Your task to perform on an android device: What's on my calendar tomorrow? Image 0: 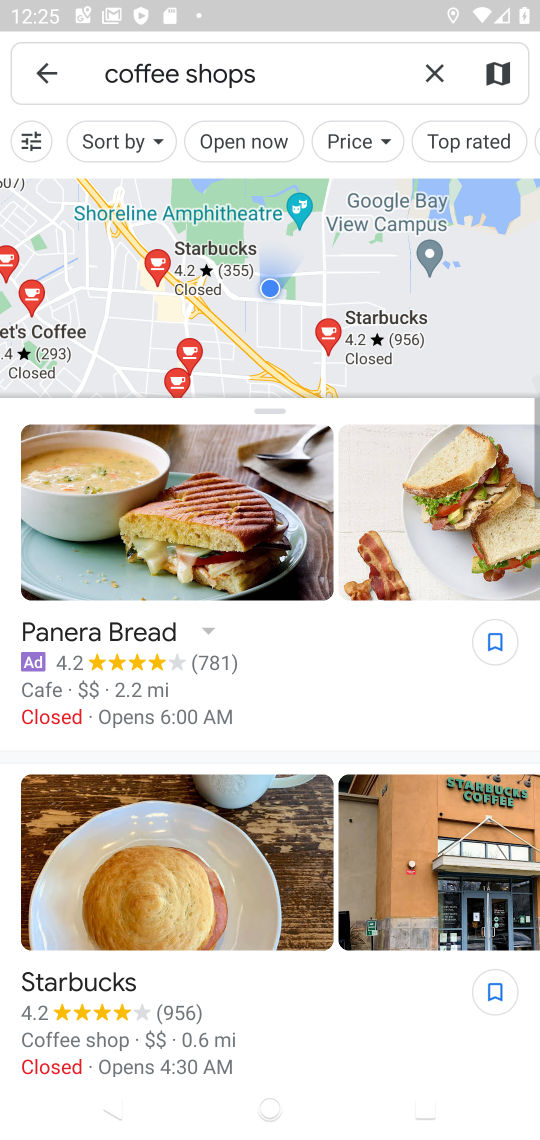
Step 0: press home button
Your task to perform on an android device: What's on my calendar tomorrow? Image 1: 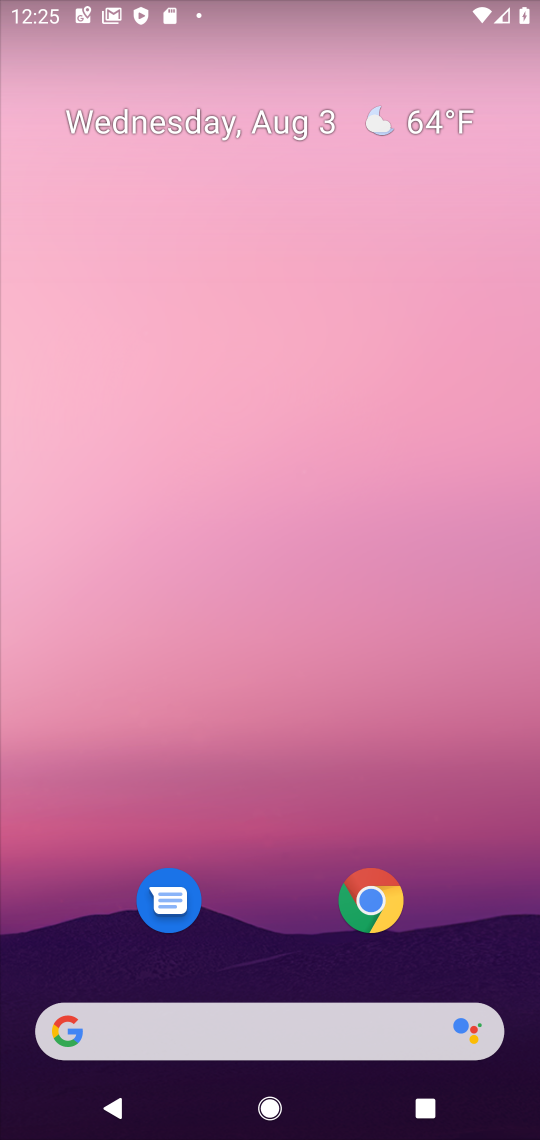
Step 1: drag from (295, 958) to (258, 153)
Your task to perform on an android device: What's on my calendar tomorrow? Image 2: 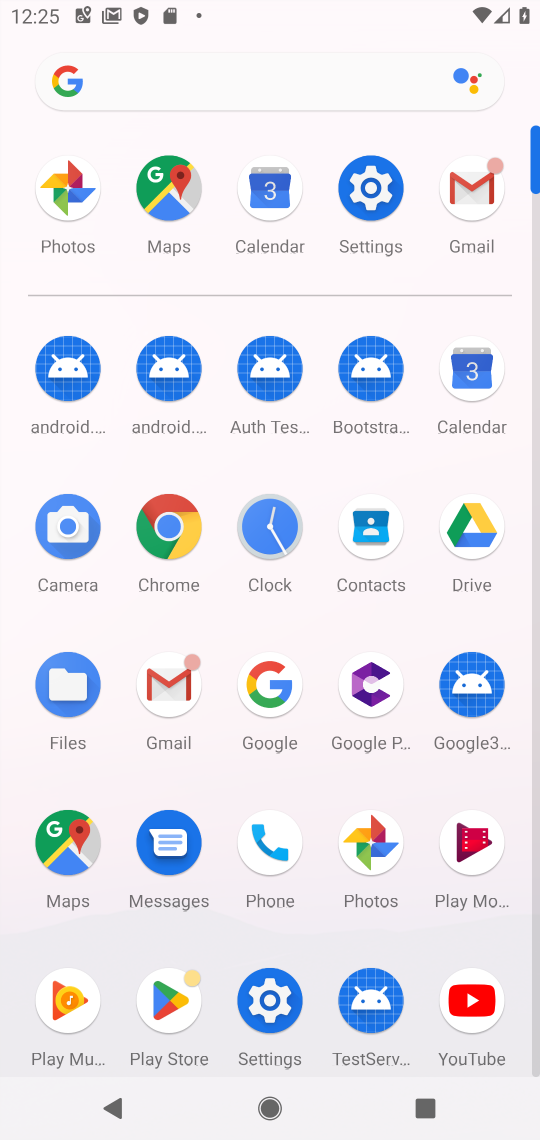
Step 2: click (470, 363)
Your task to perform on an android device: What's on my calendar tomorrow? Image 3: 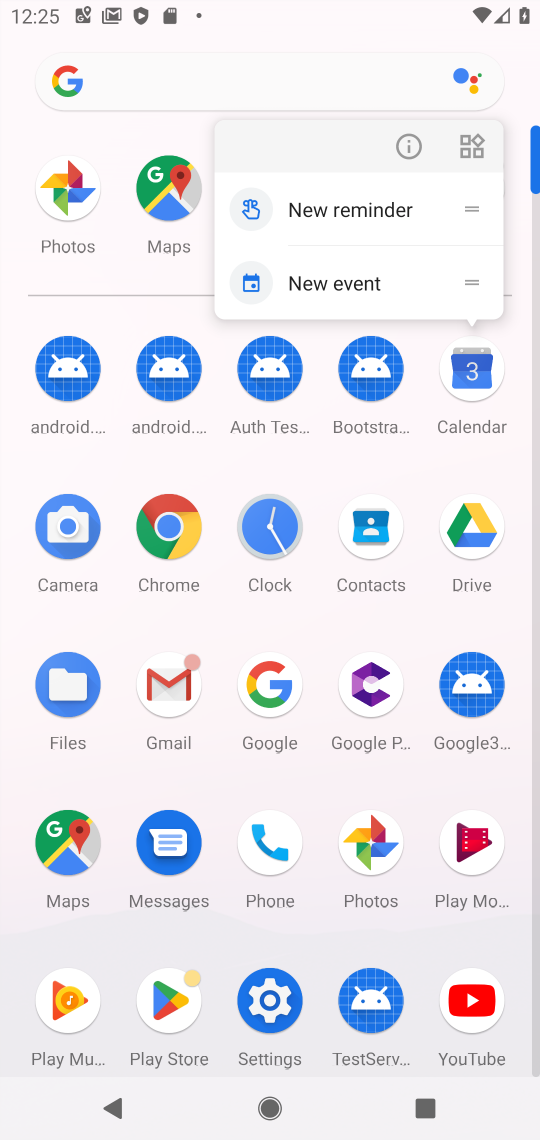
Step 3: click (470, 370)
Your task to perform on an android device: What's on my calendar tomorrow? Image 4: 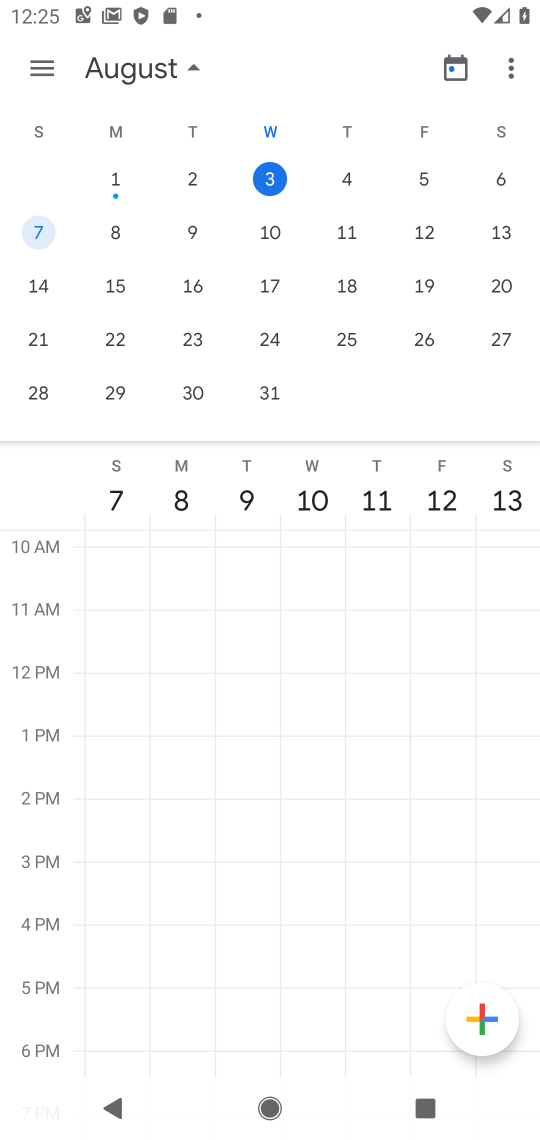
Step 4: click (352, 168)
Your task to perform on an android device: What's on my calendar tomorrow? Image 5: 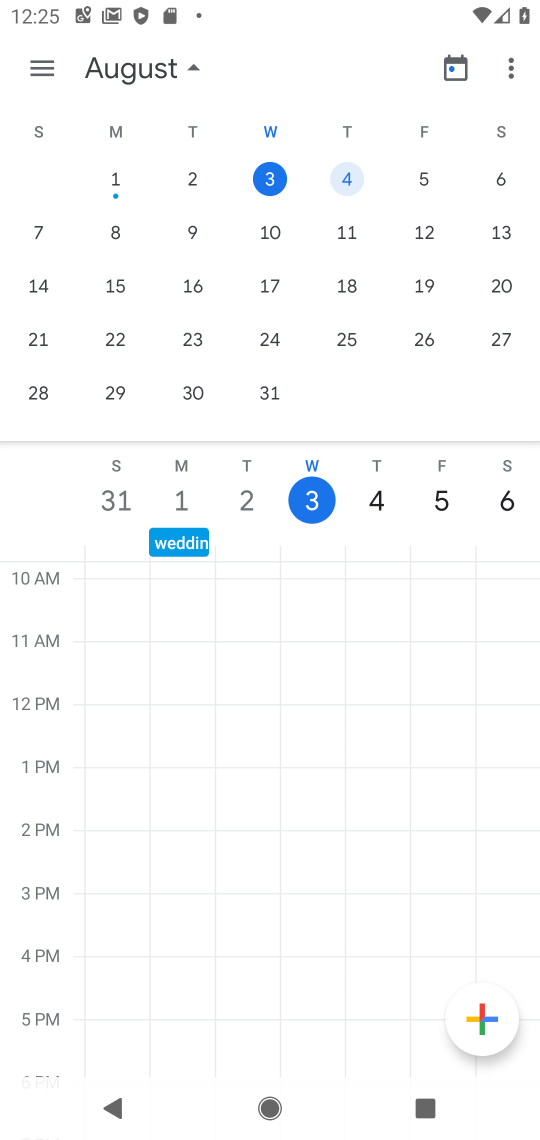
Step 5: click (382, 505)
Your task to perform on an android device: What's on my calendar tomorrow? Image 6: 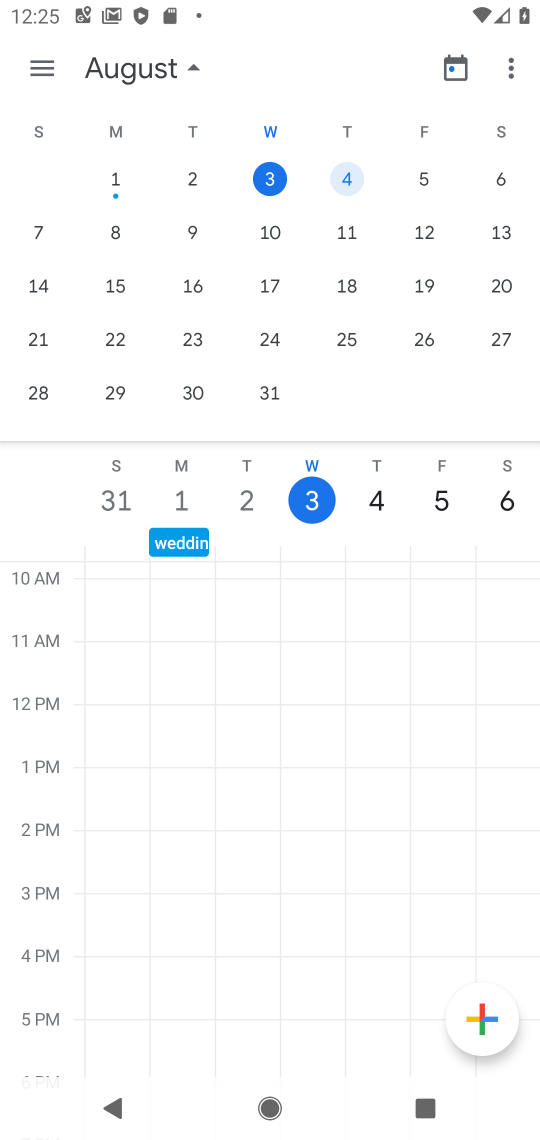
Step 6: click (382, 501)
Your task to perform on an android device: What's on my calendar tomorrow? Image 7: 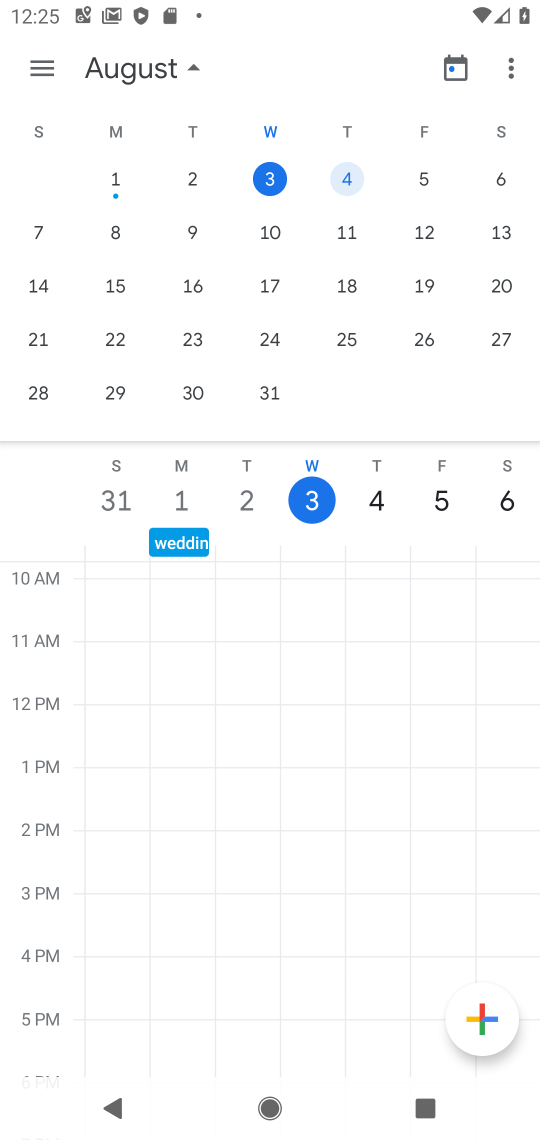
Step 7: click (373, 177)
Your task to perform on an android device: What's on my calendar tomorrow? Image 8: 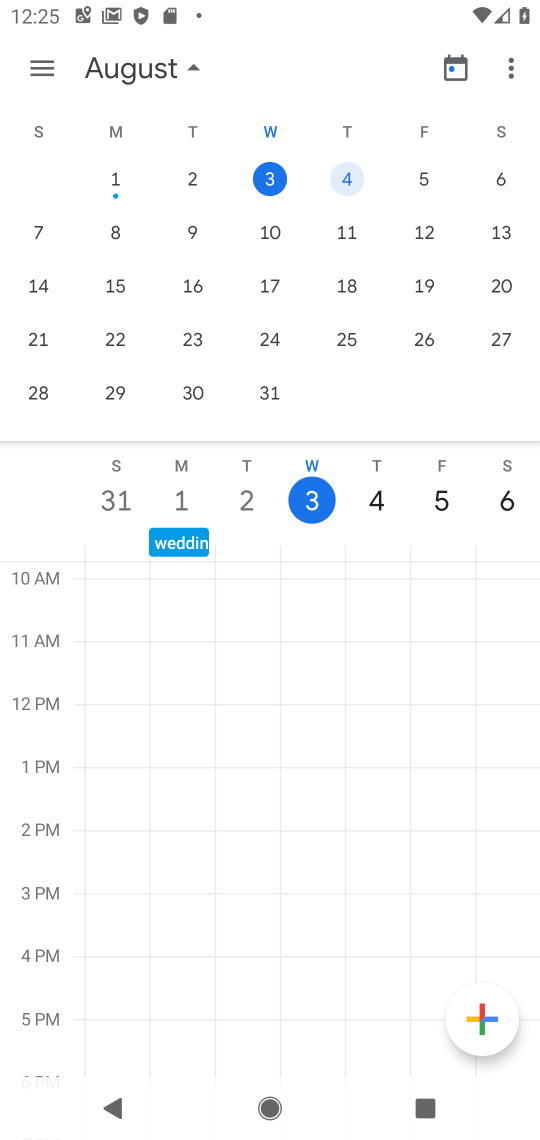
Step 8: click (328, 165)
Your task to perform on an android device: What's on my calendar tomorrow? Image 9: 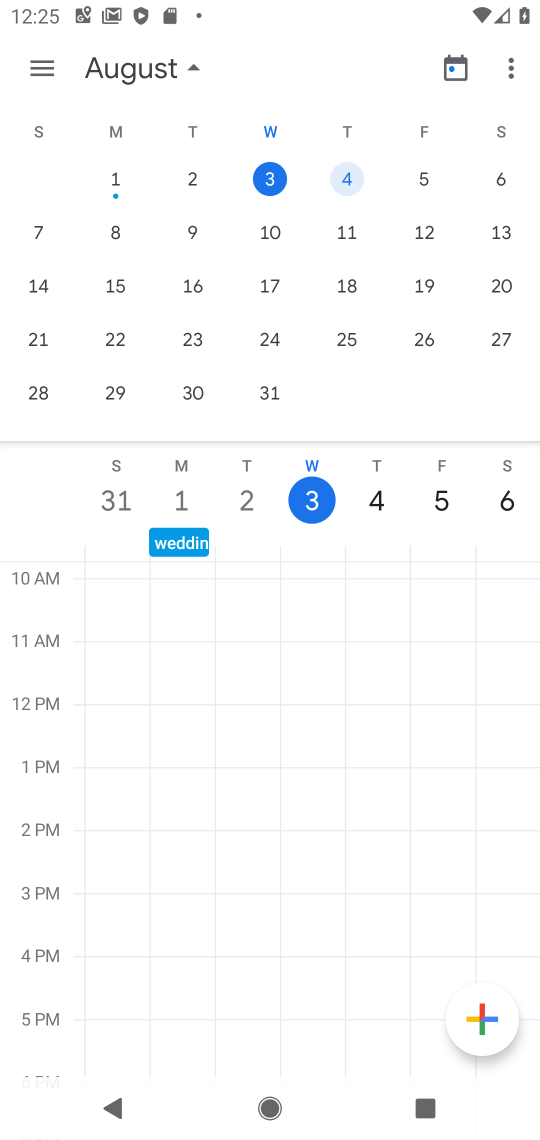
Step 9: click (348, 171)
Your task to perform on an android device: What's on my calendar tomorrow? Image 10: 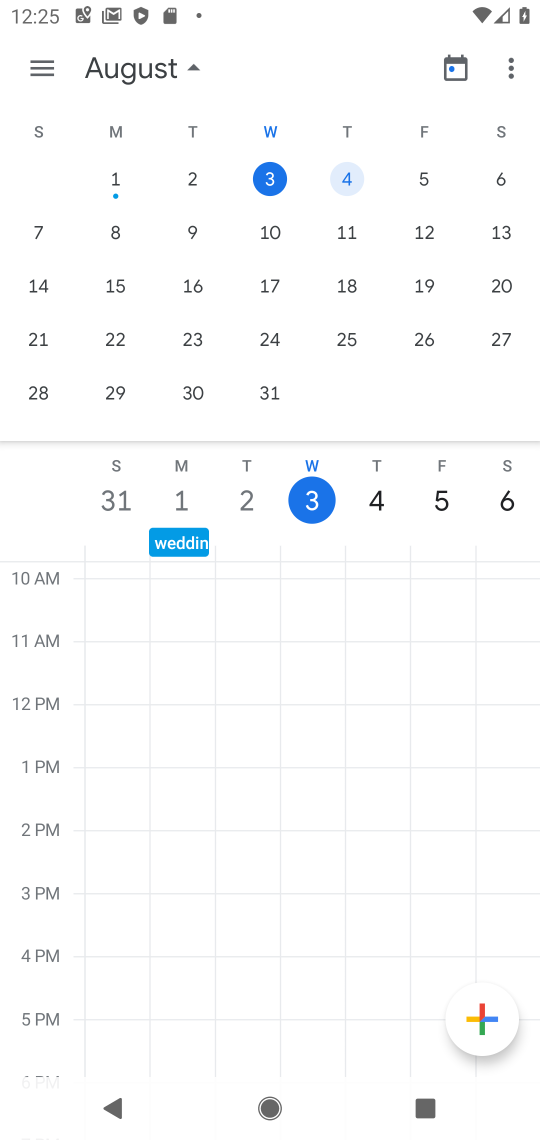
Step 10: click (348, 171)
Your task to perform on an android device: What's on my calendar tomorrow? Image 11: 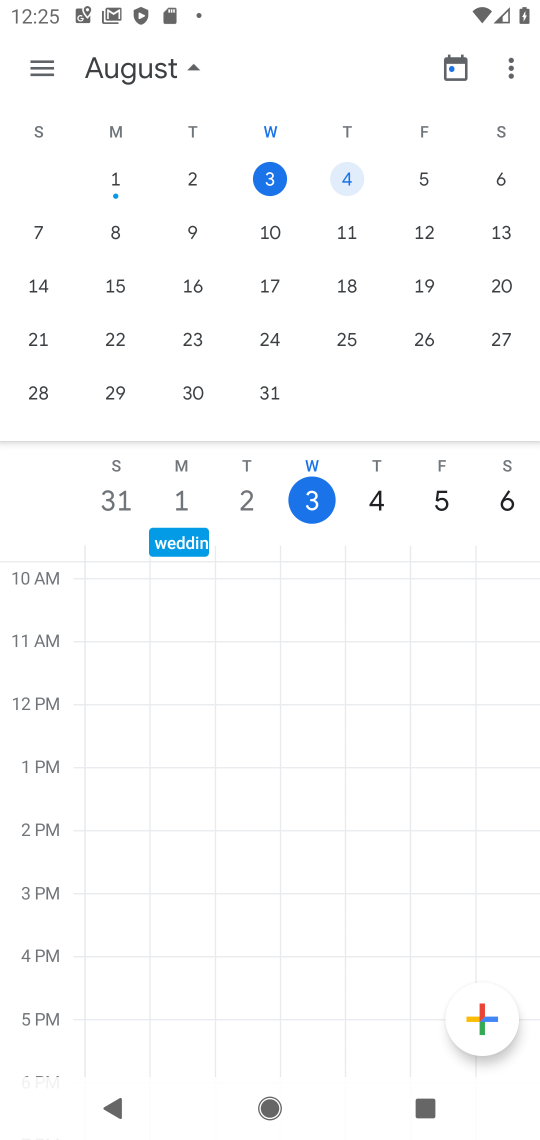
Step 11: click (381, 496)
Your task to perform on an android device: What's on my calendar tomorrow? Image 12: 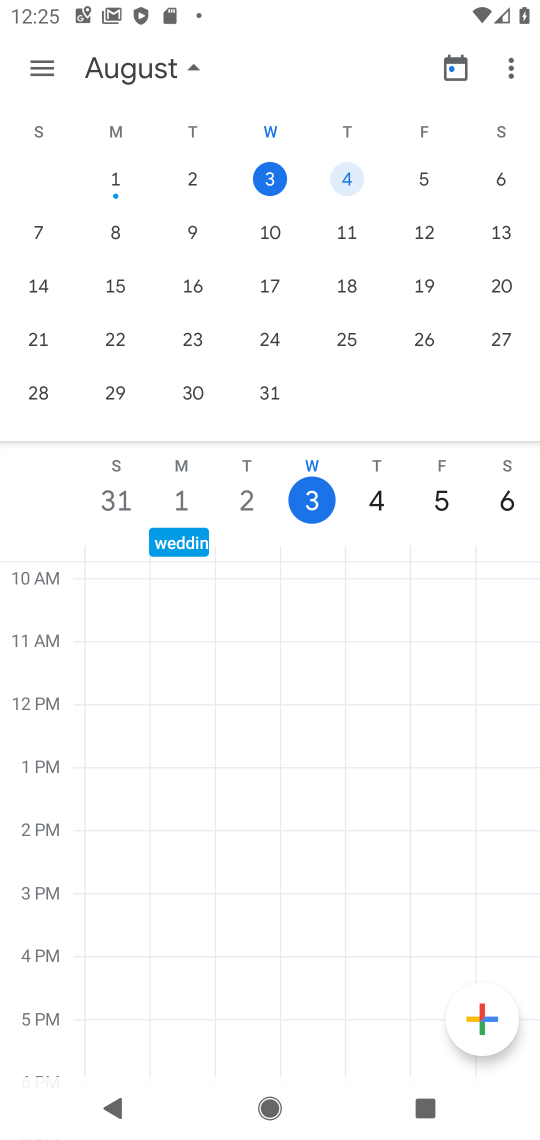
Step 12: click (381, 496)
Your task to perform on an android device: What's on my calendar tomorrow? Image 13: 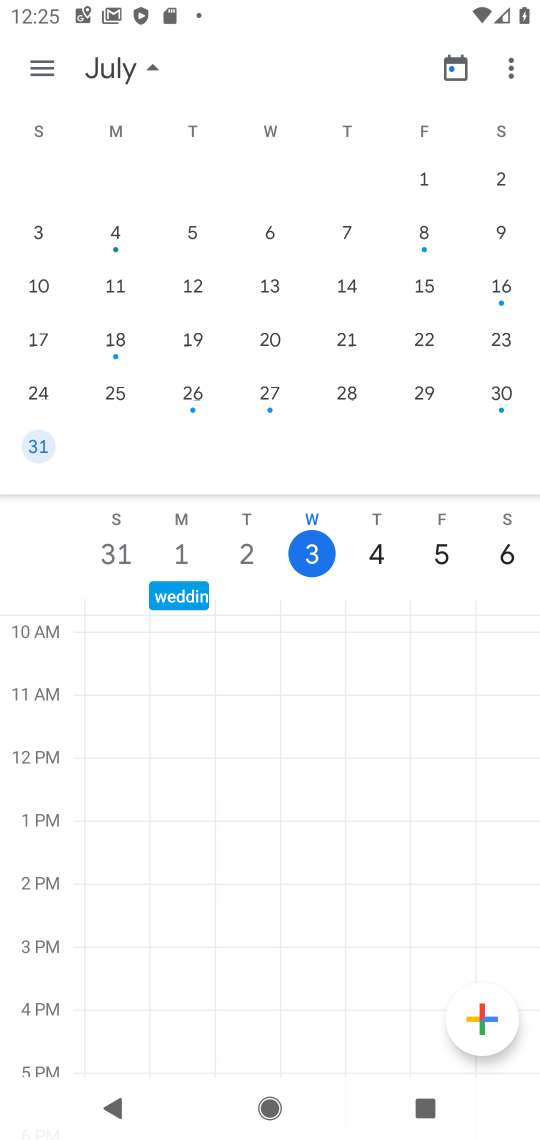
Step 13: click (386, 542)
Your task to perform on an android device: What's on my calendar tomorrow? Image 14: 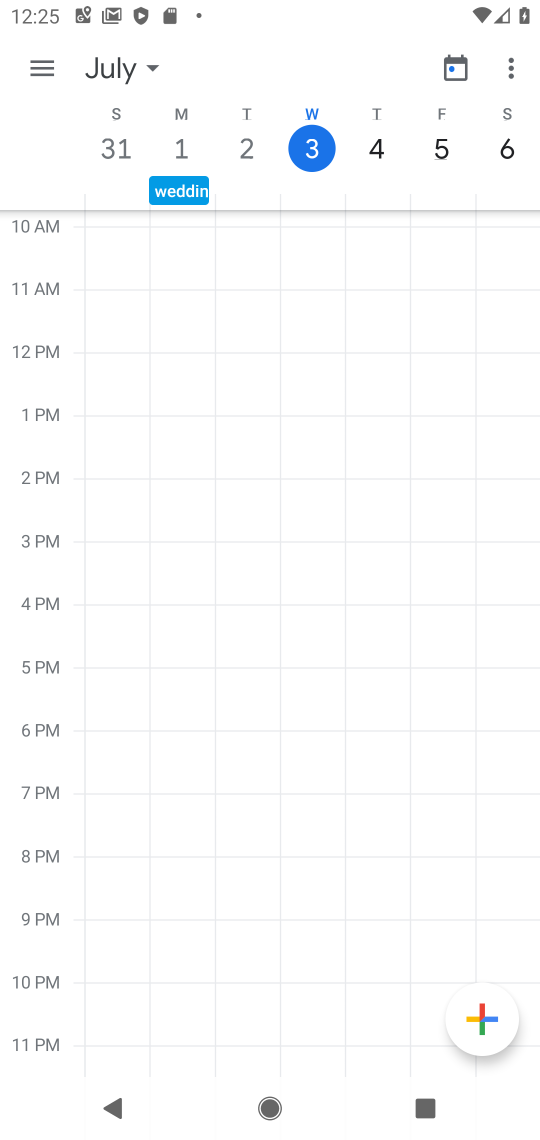
Step 14: click (385, 145)
Your task to perform on an android device: What's on my calendar tomorrow? Image 15: 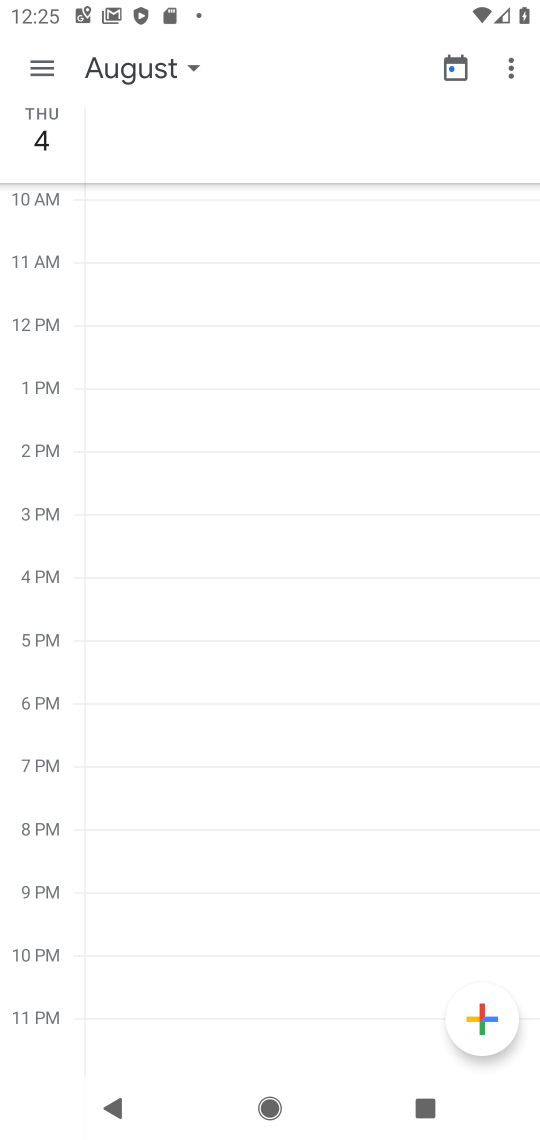
Step 15: task complete